Your task to perform on an android device: Do I have any events this weekend? Image 0: 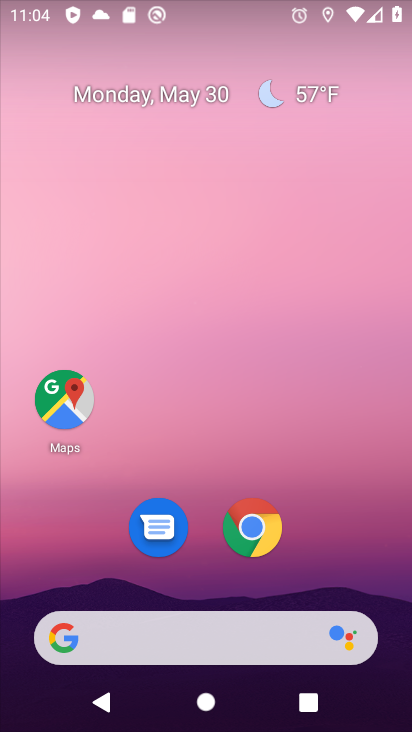
Step 0: drag from (359, 516) to (333, 227)
Your task to perform on an android device: Do I have any events this weekend? Image 1: 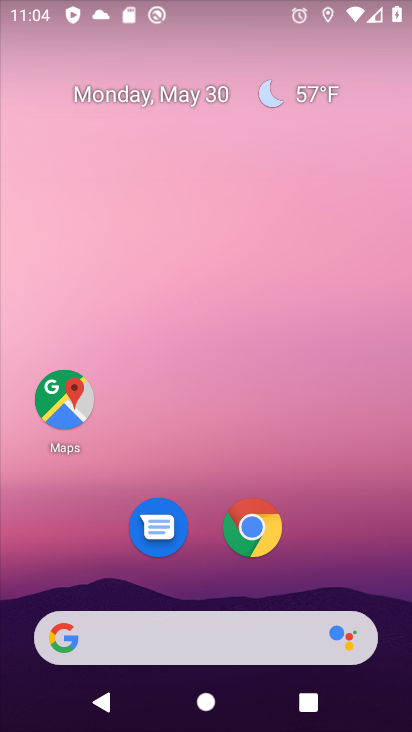
Step 1: drag from (387, 609) to (320, 135)
Your task to perform on an android device: Do I have any events this weekend? Image 2: 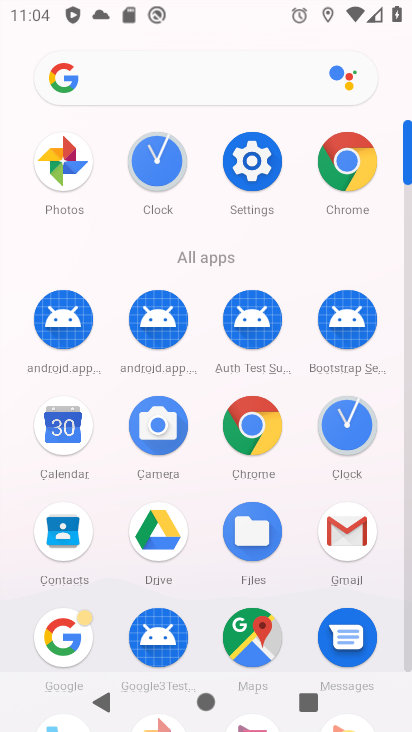
Step 2: click (49, 420)
Your task to perform on an android device: Do I have any events this weekend? Image 3: 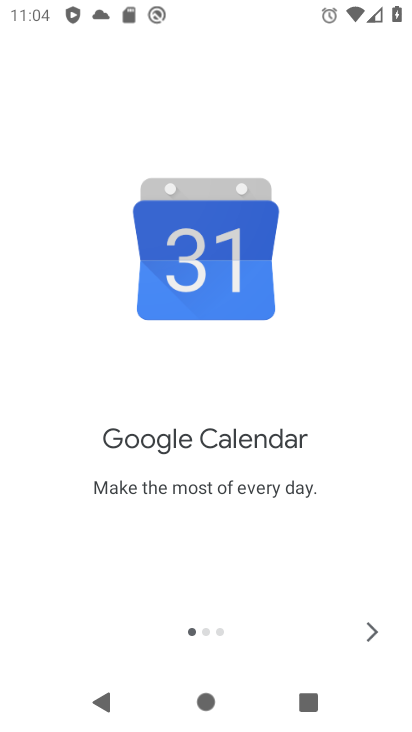
Step 3: click (378, 633)
Your task to perform on an android device: Do I have any events this weekend? Image 4: 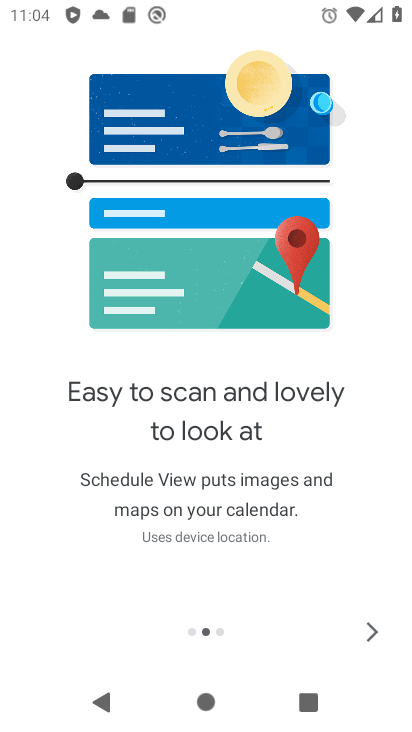
Step 4: click (376, 627)
Your task to perform on an android device: Do I have any events this weekend? Image 5: 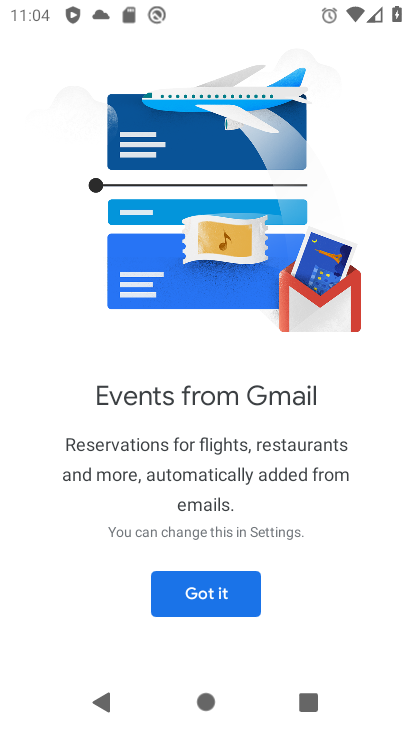
Step 5: click (231, 582)
Your task to perform on an android device: Do I have any events this weekend? Image 6: 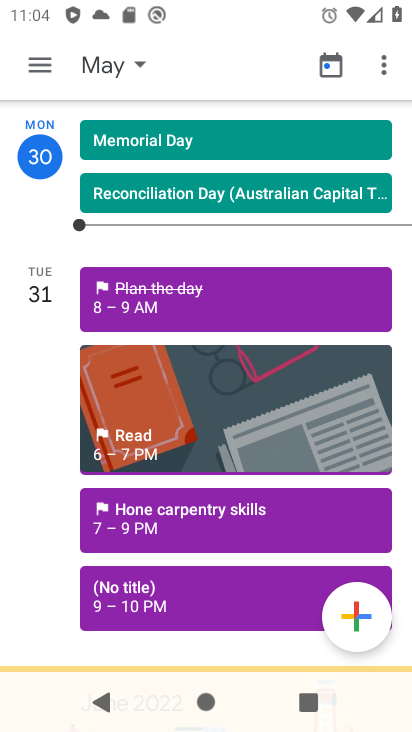
Step 6: task complete